Your task to perform on an android device: change your default location settings in chrome Image 0: 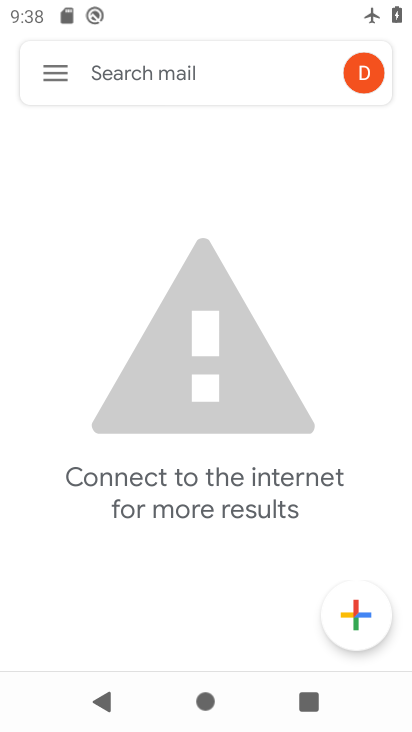
Step 0: press home button
Your task to perform on an android device: change your default location settings in chrome Image 1: 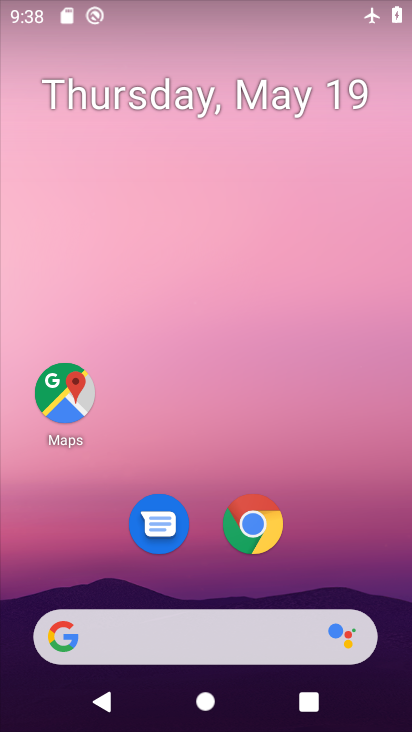
Step 1: click (262, 525)
Your task to perform on an android device: change your default location settings in chrome Image 2: 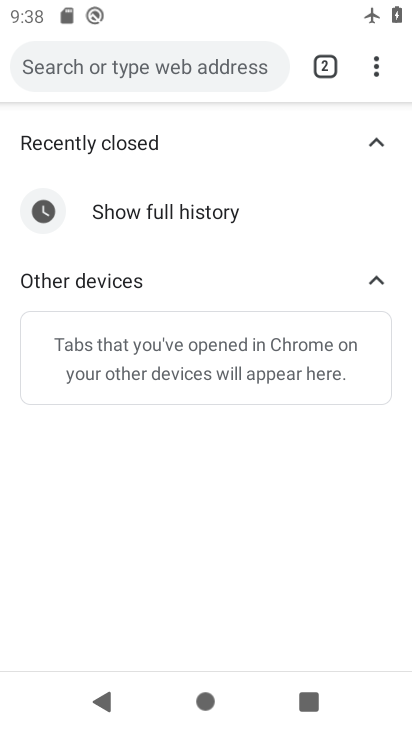
Step 2: click (375, 70)
Your task to perform on an android device: change your default location settings in chrome Image 3: 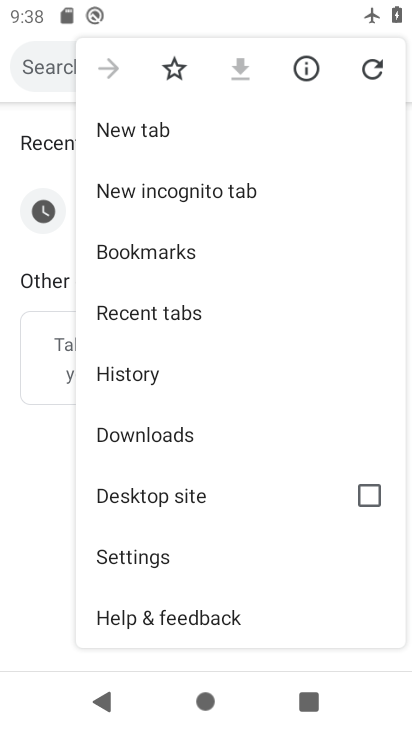
Step 3: click (156, 557)
Your task to perform on an android device: change your default location settings in chrome Image 4: 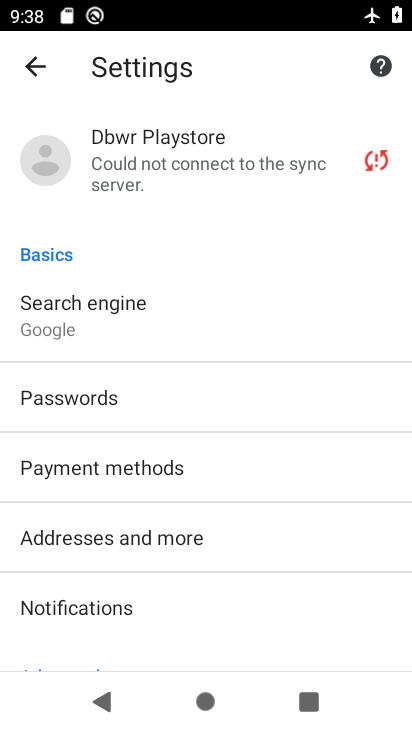
Step 4: drag from (239, 488) to (249, 159)
Your task to perform on an android device: change your default location settings in chrome Image 5: 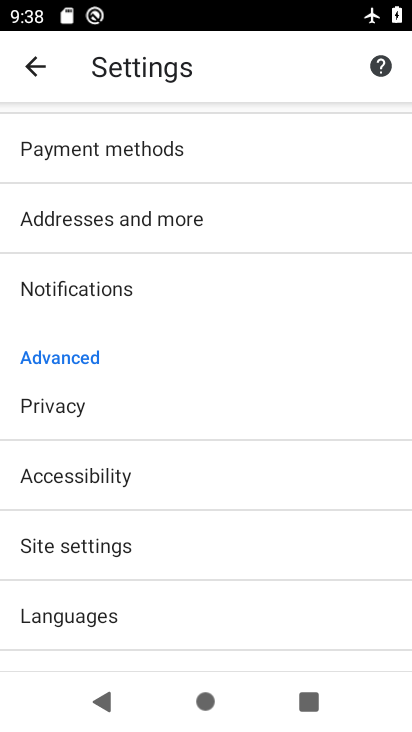
Step 5: click (203, 550)
Your task to perform on an android device: change your default location settings in chrome Image 6: 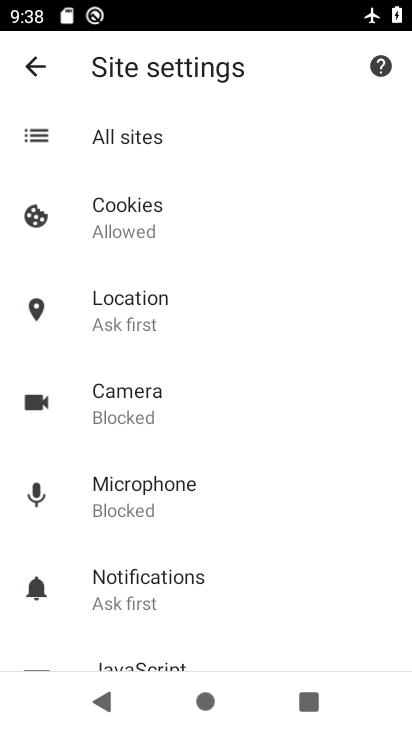
Step 6: click (175, 306)
Your task to perform on an android device: change your default location settings in chrome Image 7: 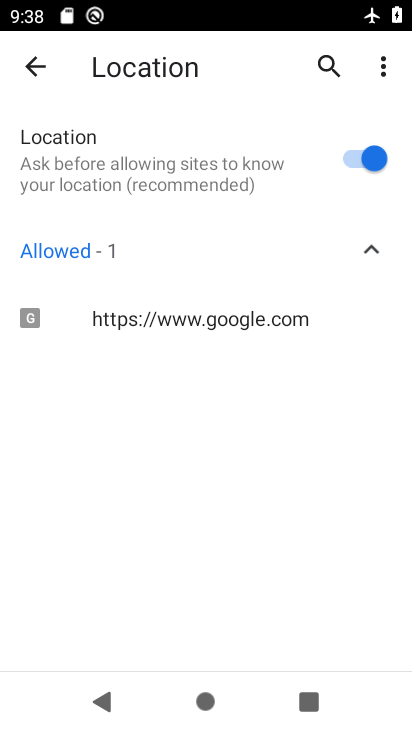
Step 7: click (349, 149)
Your task to perform on an android device: change your default location settings in chrome Image 8: 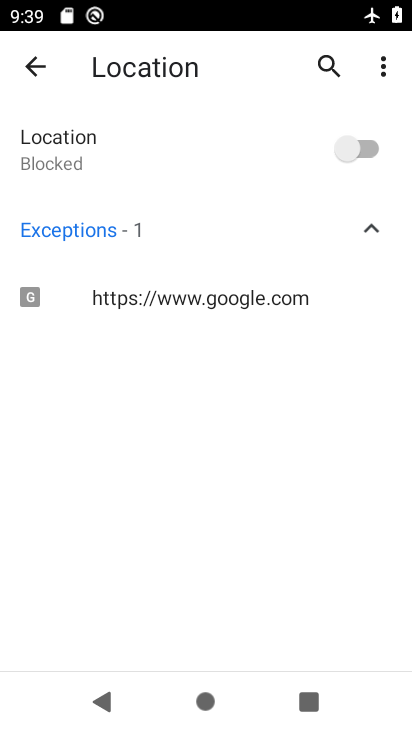
Step 8: task complete